Your task to perform on an android device: change alarm snooze length Image 0: 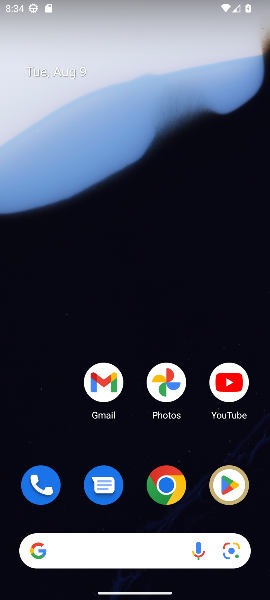
Step 0: drag from (133, 455) to (92, 114)
Your task to perform on an android device: change alarm snooze length Image 1: 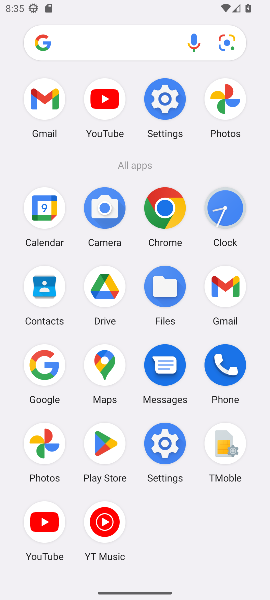
Step 1: click (216, 215)
Your task to perform on an android device: change alarm snooze length Image 2: 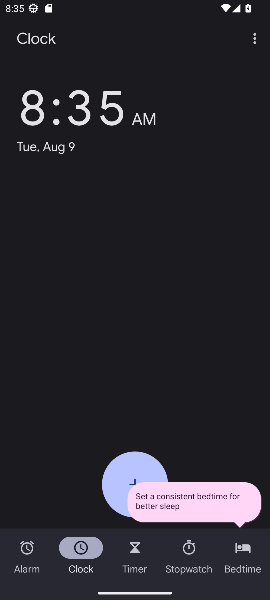
Step 2: click (259, 42)
Your task to perform on an android device: change alarm snooze length Image 3: 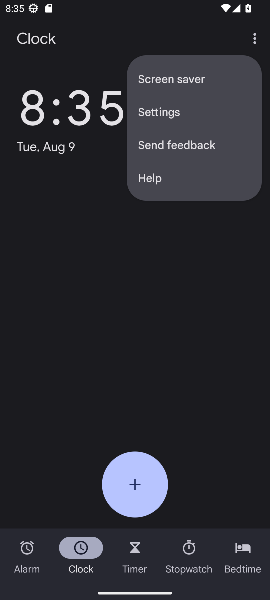
Step 3: click (149, 118)
Your task to perform on an android device: change alarm snooze length Image 4: 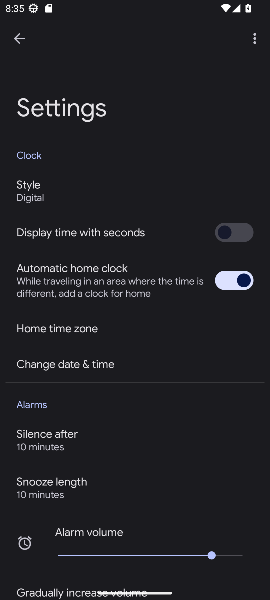
Step 4: click (67, 483)
Your task to perform on an android device: change alarm snooze length Image 5: 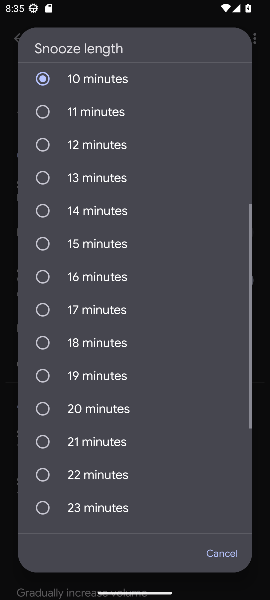
Step 5: click (72, 317)
Your task to perform on an android device: change alarm snooze length Image 6: 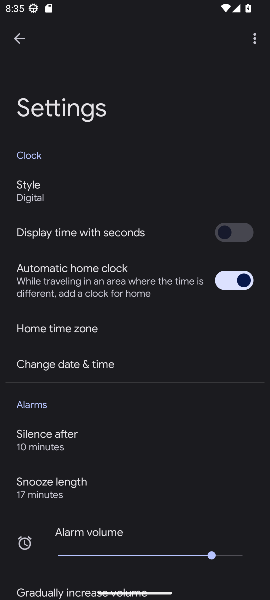
Step 6: task complete